Your task to perform on an android device: turn on improve location accuracy Image 0: 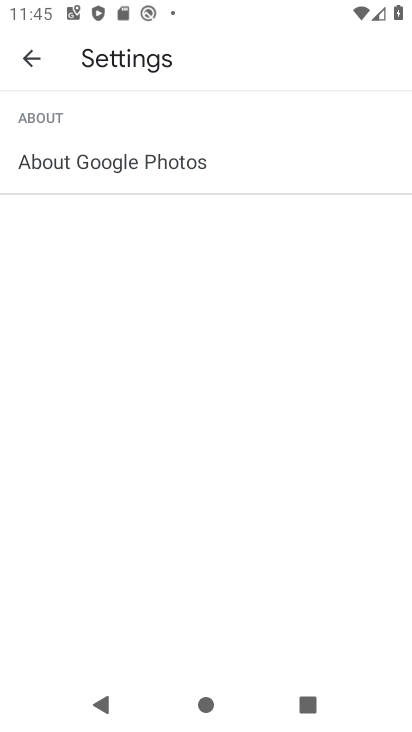
Step 0: press home button
Your task to perform on an android device: turn on improve location accuracy Image 1: 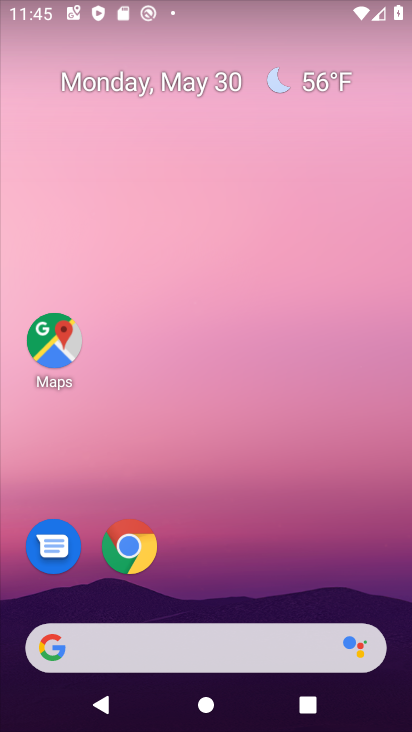
Step 1: drag from (266, 554) to (234, 115)
Your task to perform on an android device: turn on improve location accuracy Image 2: 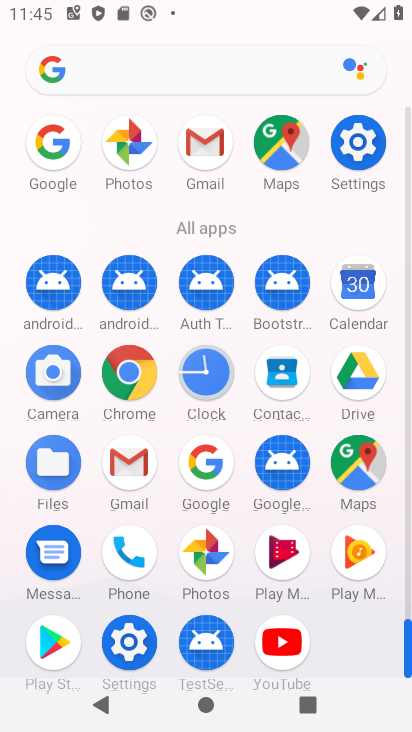
Step 2: click (359, 144)
Your task to perform on an android device: turn on improve location accuracy Image 3: 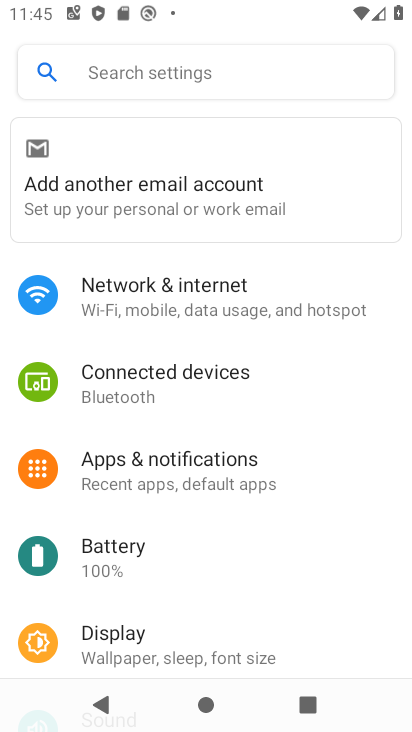
Step 3: drag from (164, 556) to (149, 392)
Your task to perform on an android device: turn on improve location accuracy Image 4: 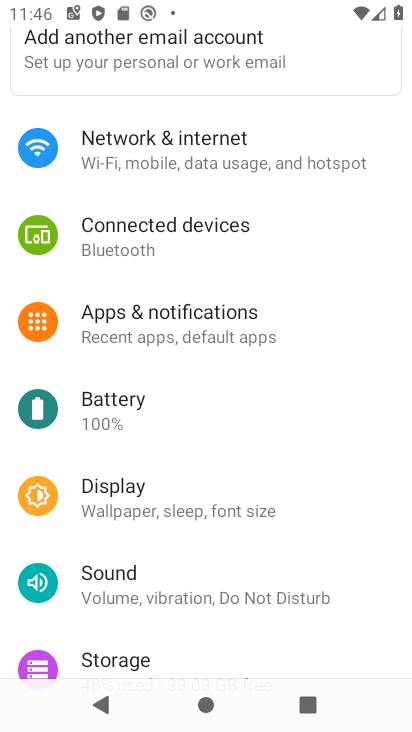
Step 4: drag from (189, 536) to (246, 420)
Your task to perform on an android device: turn on improve location accuracy Image 5: 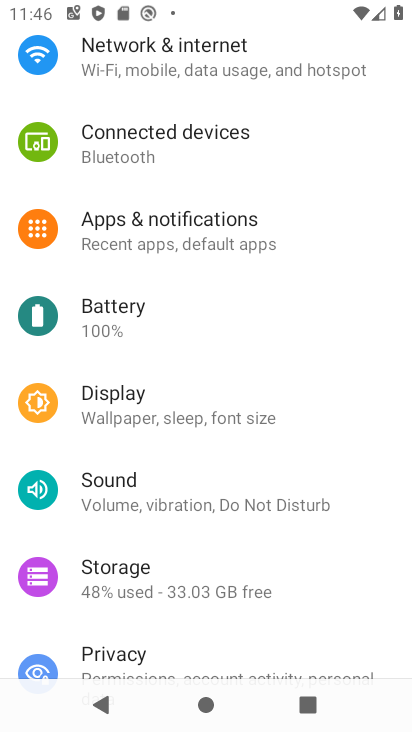
Step 5: drag from (188, 545) to (218, 420)
Your task to perform on an android device: turn on improve location accuracy Image 6: 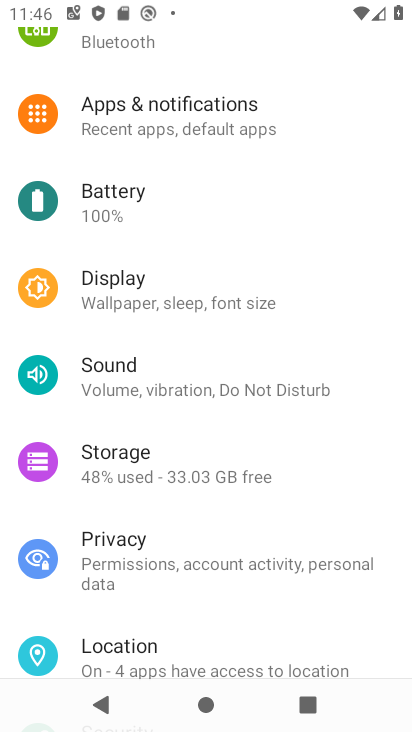
Step 6: drag from (170, 597) to (236, 491)
Your task to perform on an android device: turn on improve location accuracy Image 7: 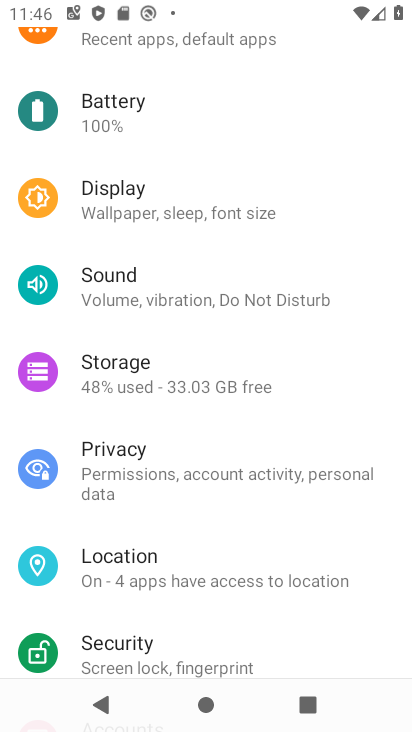
Step 7: click (193, 569)
Your task to perform on an android device: turn on improve location accuracy Image 8: 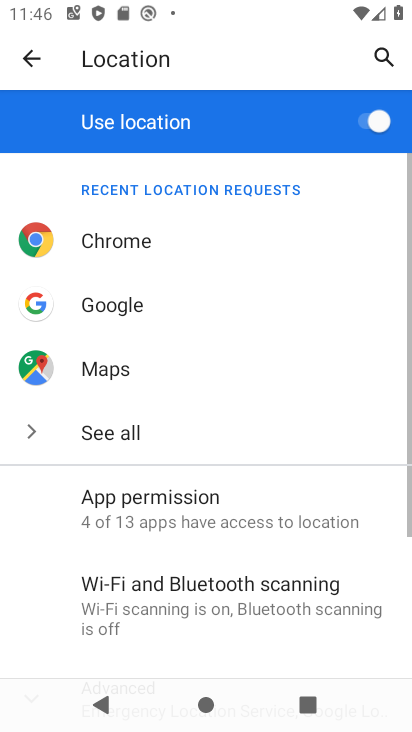
Step 8: drag from (212, 553) to (290, 356)
Your task to perform on an android device: turn on improve location accuracy Image 9: 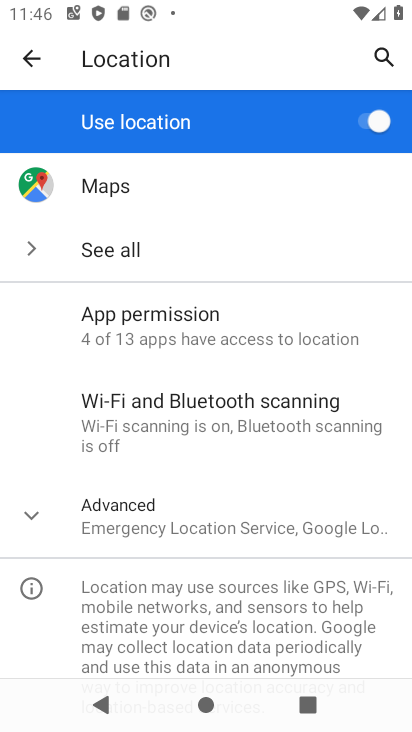
Step 9: click (213, 522)
Your task to perform on an android device: turn on improve location accuracy Image 10: 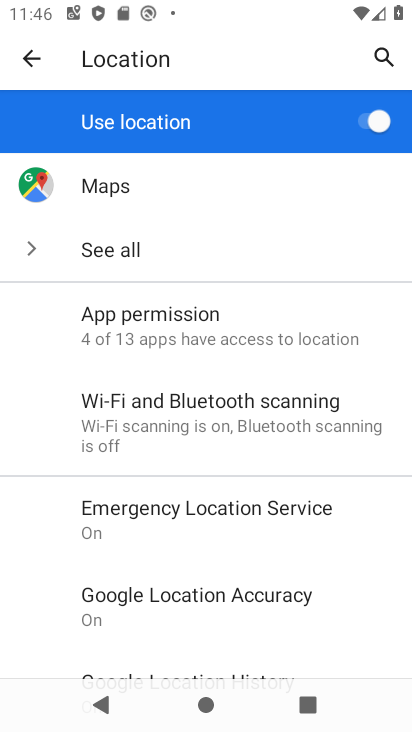
Step 10: drag from (213, 560) to (254, 486)
Your task to perform on an android device: turn on improve location accuracy Image 11: 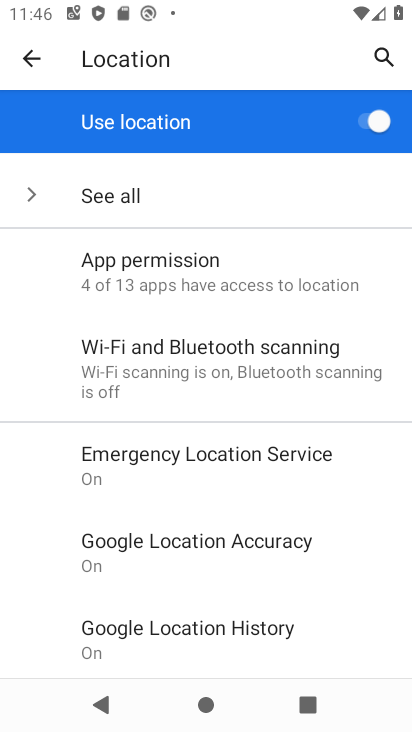
Step 11: click (254, 540)
Your task to perform on an android device: turn on improve location accuracy Image 12: 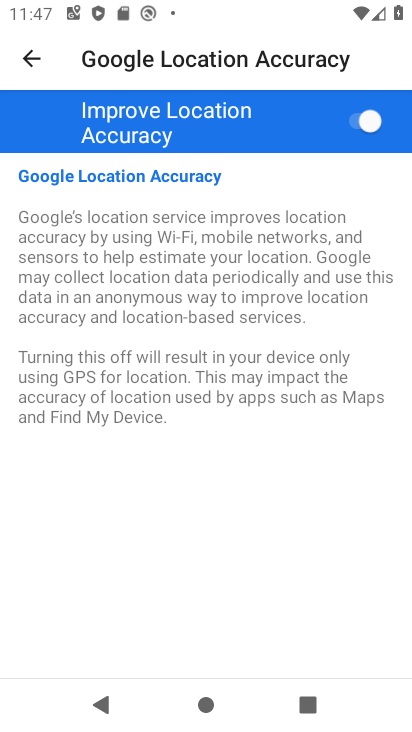
Step 12: task complete